Your task to perform on an android device: remove spam from my inbox in the gmail app Image 0: 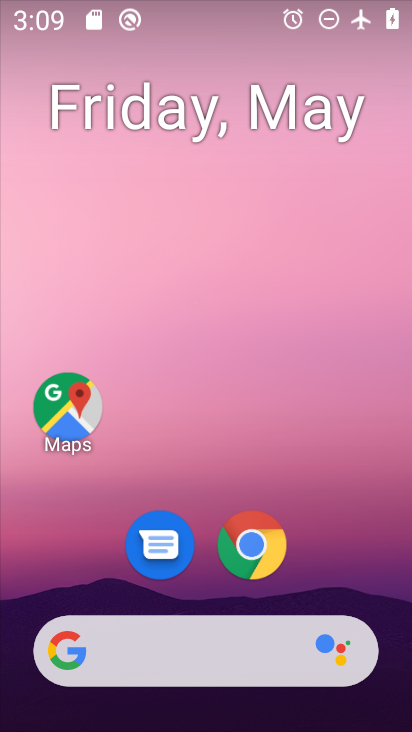
Step 0: drag from (310, 591) to (308, 311)
Your task to perform on an android device: remove spam from my inbox in the gmail app Image 1: 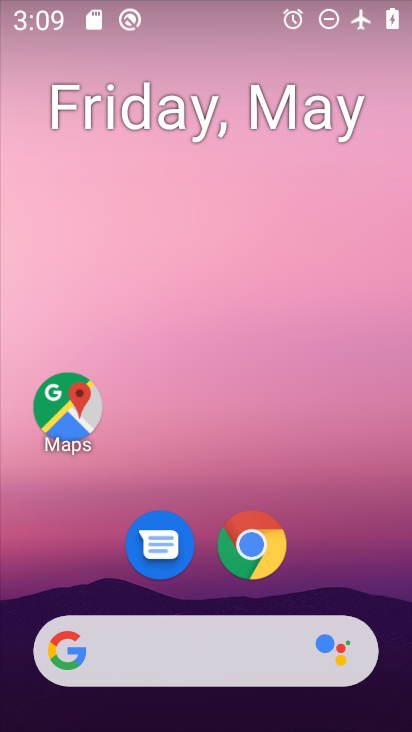
Step 1: drag from (294, 591) to (321, 154)
Your task to perform on an android device: remove spam from my inbox in the gmail app Image 2: 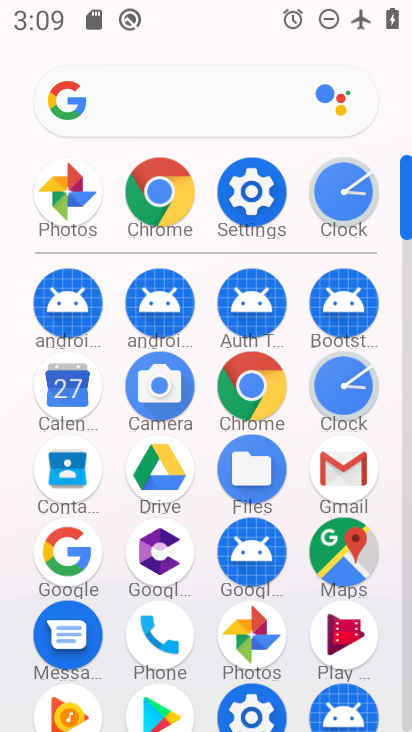
Step 2: click (340, 468)
Your task to perform on an android device: remove spam from my inbox in the gmail app Image 3: 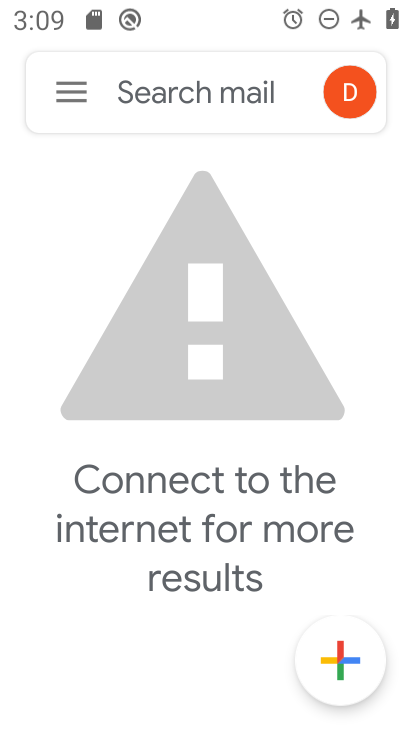
Step 3: click (66, 87)
Your task to perform on an android device: remove spam from my inbox in the gmail app Image 4: 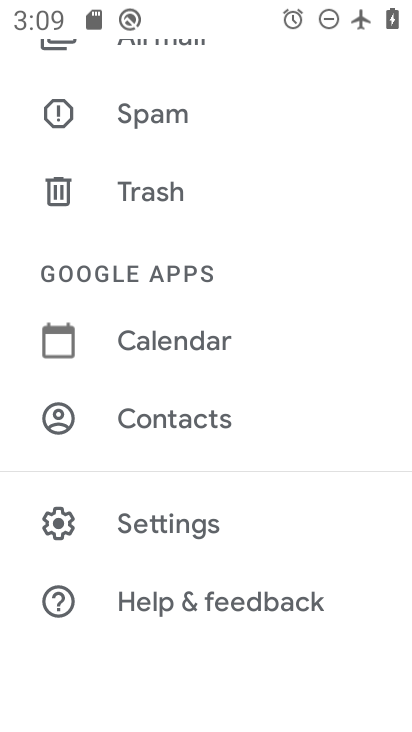
Step 4: click (180, 124)
Your task to perform on an android device: remove spam from my inbox in the gmail app Image 5: 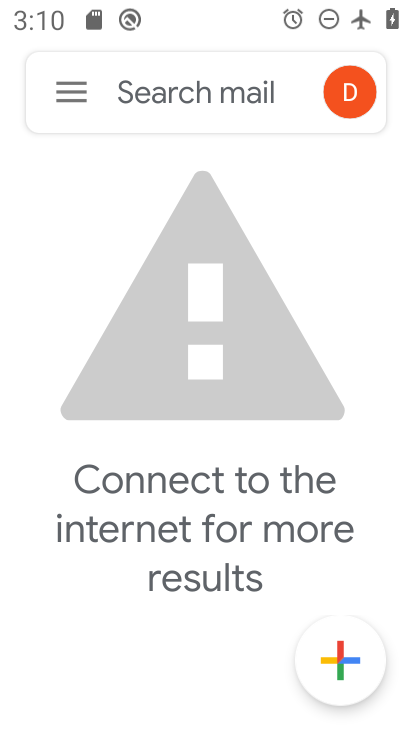
Step 5: task complete